Your task to perform on an android device: turn off priority inbox in the gmail app Image 0: 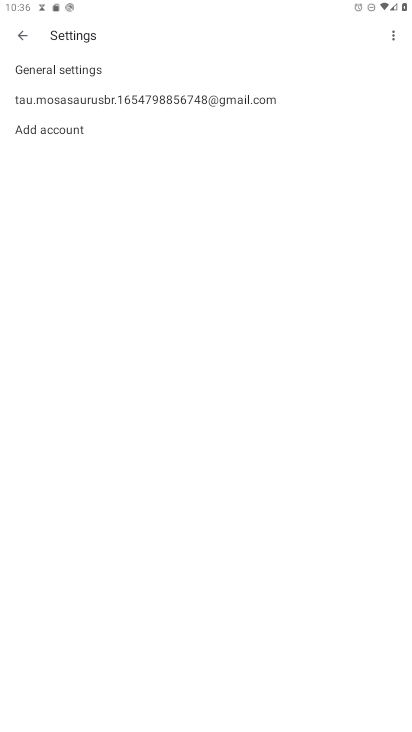
Step 0: click (101, 94)
Your task to perform on an android device: turn off priority inbox in the gmail app Image 1: 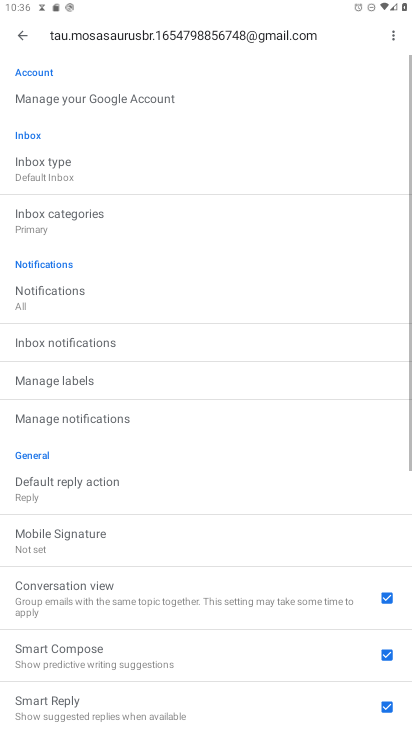
Step 1: click (43, 174)
Your task to perform on an android device: turn off priority inbox in the gmail app Image 2: 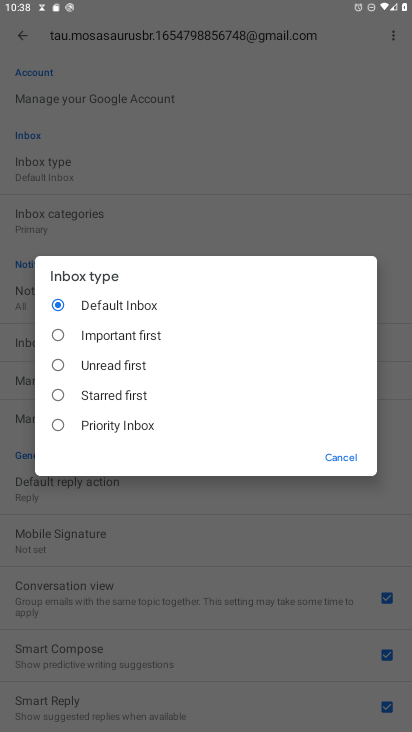
Step 2: task complete